Your task to perform on an android device: turn on wifi Image 0: 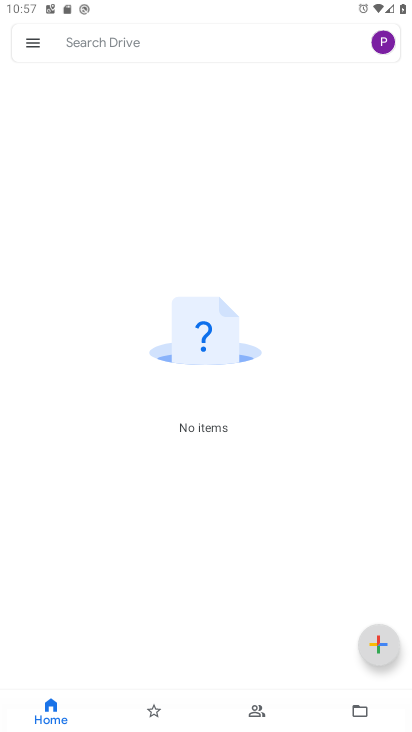
Step 0: press home button
Your task to perform on an android device: turn on wifi Image 1: 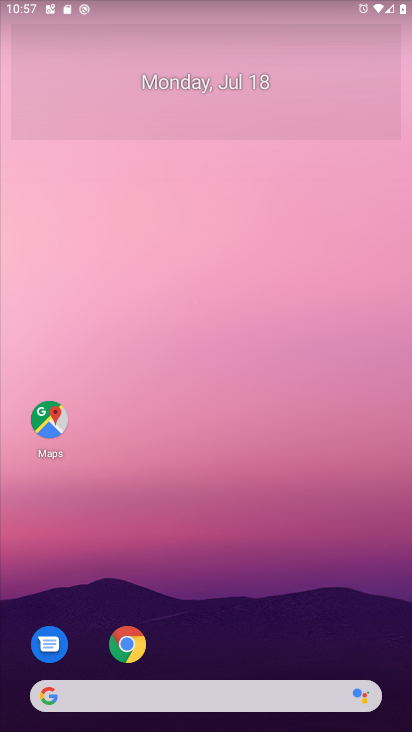
Step 1: drag from (287, 634) to (269, 80)
Your task to perform on an android device: turn on wifi Image 2: 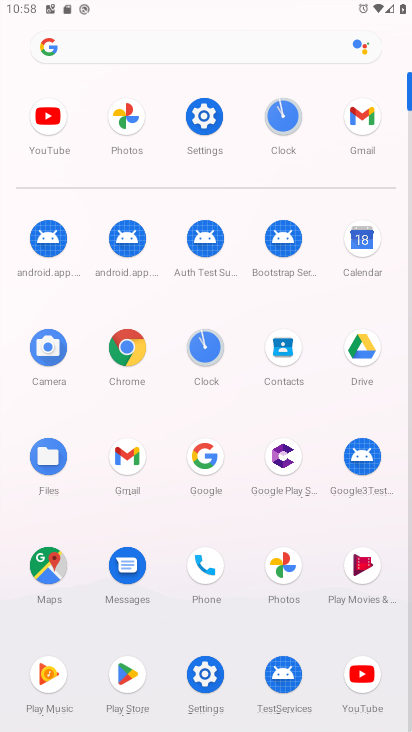
Step 2: click (210, 123)
Your task to perform on an android device: turn on wifi Image 3: 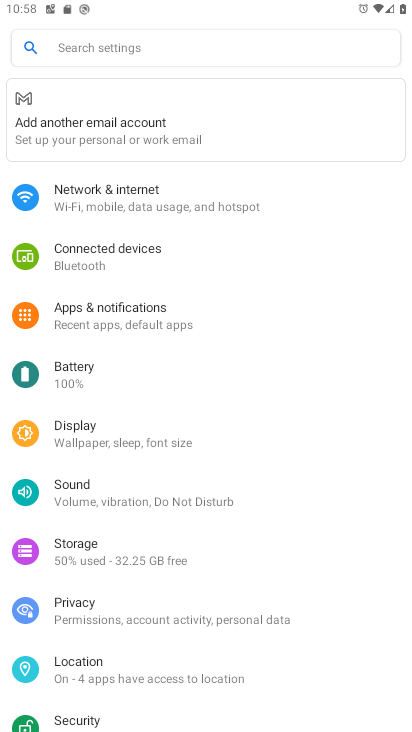
Step 3: click (236, 210)
Your task to perform on an android device: turn on wifi Image 4: 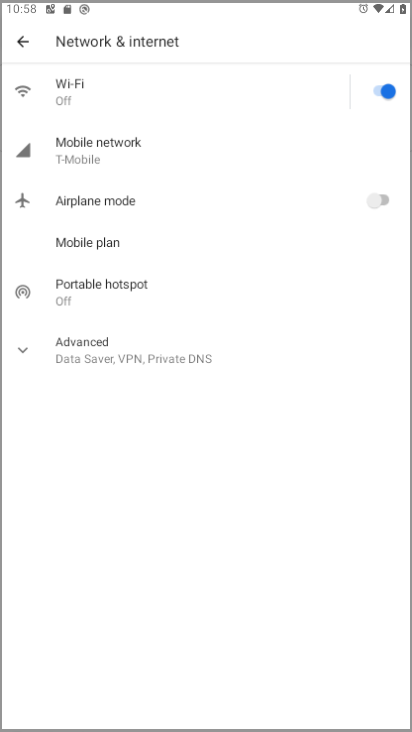
Step 4: task complete